Your task to perform on an android device: Go to Maps Image 0: 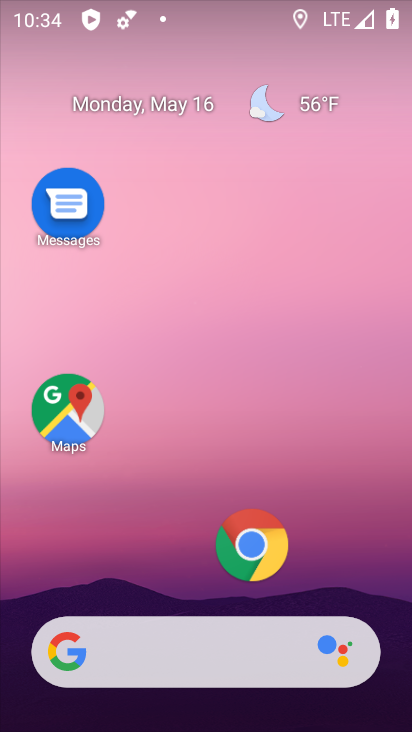
Step 0: click (82, 410)
Your task to perform on an android device: Go to Maps Image 1: 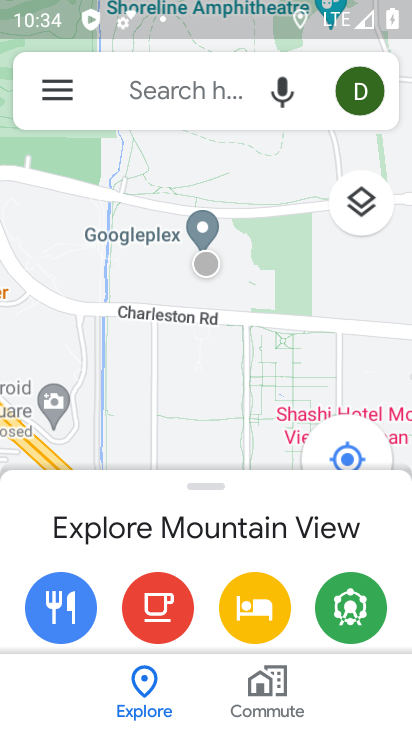
Step 1: task complete